Your task to perform on an android device: clear all cookies in the chrome app Image 0: 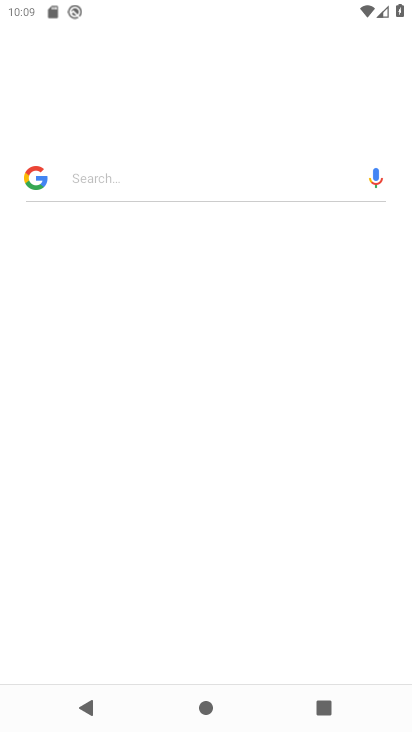
Step 0: drag from (387, 398) to (371, 208)
Your task to perform on an android device: clear all cookies in the chrome app Image 1: 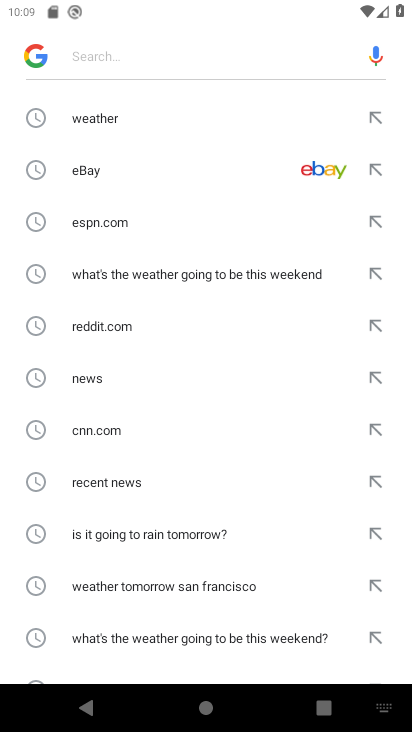
Step 1: press home button
Your task to perform on an android device: clear all cookies in the chrome app Image 2: 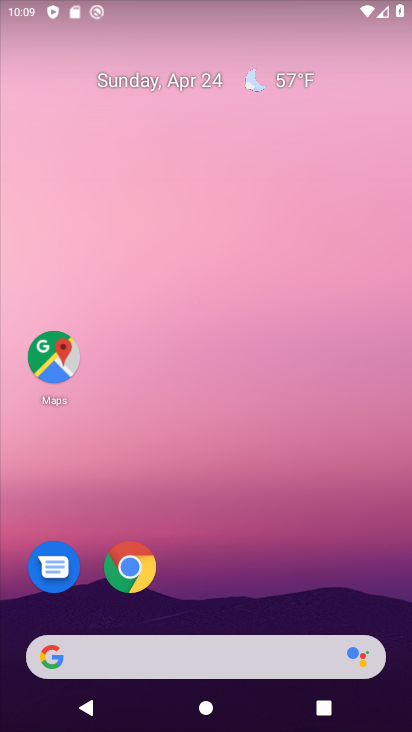
Step 2: click (132, 560)
Your task to perform on an android device: clear all cookies in the chrome app Image 3: 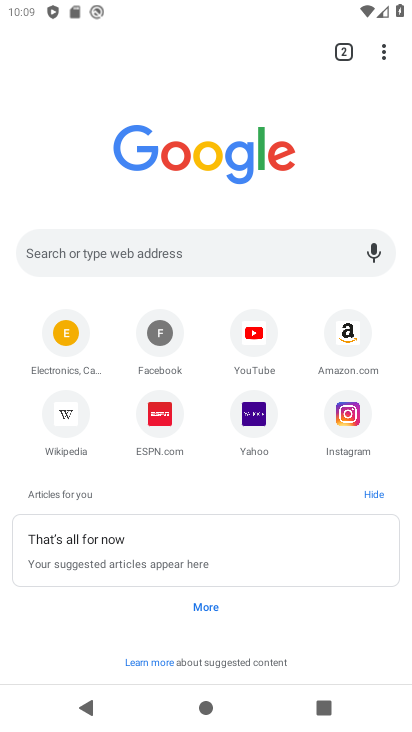
Step 3: click (382, 45)
Your task to perform on an android device: clear all cookies in the chrome app Image 4: 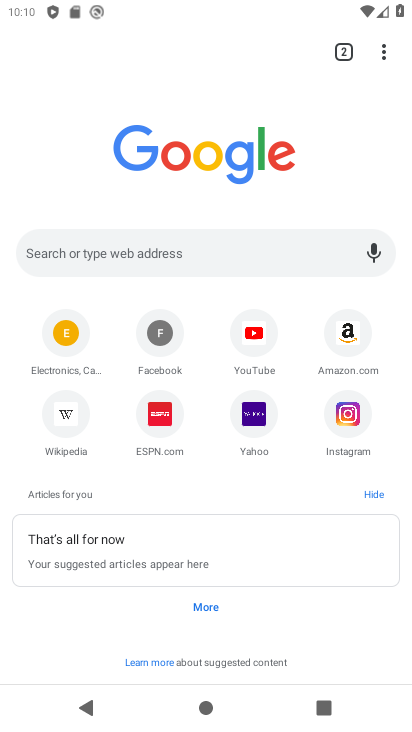
Step 4: click (382, 45)
Your task to perform on an android device: clear all cookies in the chrome app Image 5: 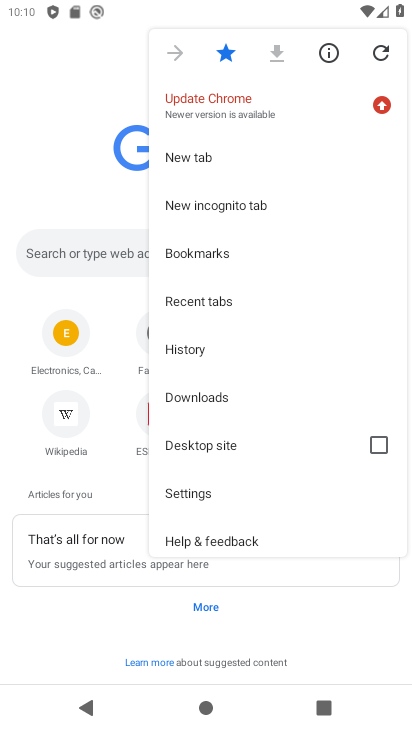
Step 5: click (169, 348)
Your task to perform on an android device: clear all cookies in the chrome app Image 6: 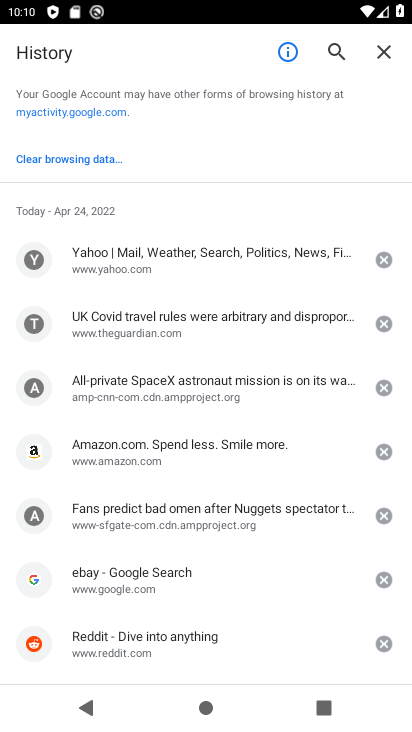
Step 6: click (68, 148)
Your task to perform on an android device: clear all cookies in the chrome app Image 7: 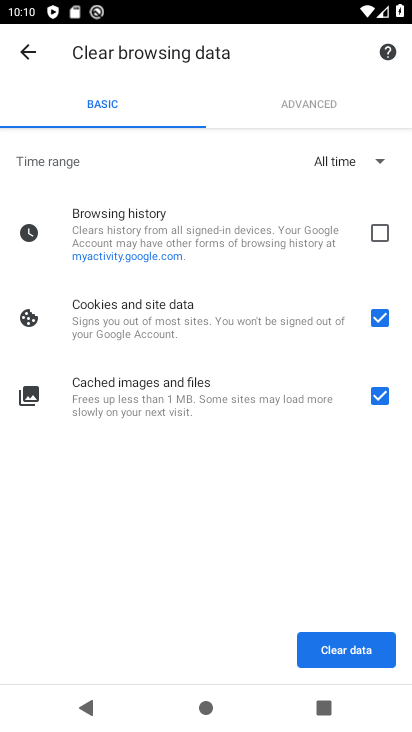
Step 7: click (340, 645)
Your task to perform on an android device: clear all cookies in the chrome app Image 8: 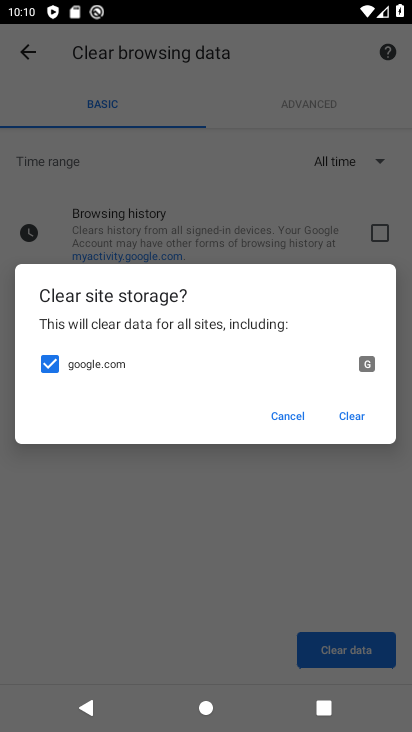
Step 8: click (342, 408)
Your task to perform on an android device: clear all cookies in the chrome app Image 9: 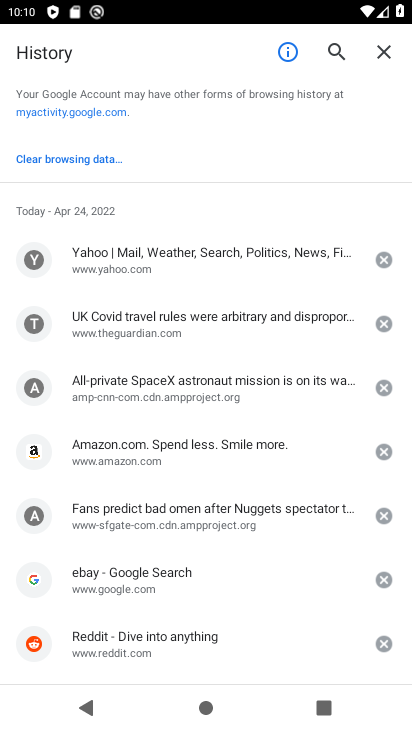
Step 9: task complete